Your task to perform on an android device: change your default location settings in chrome Image 0: 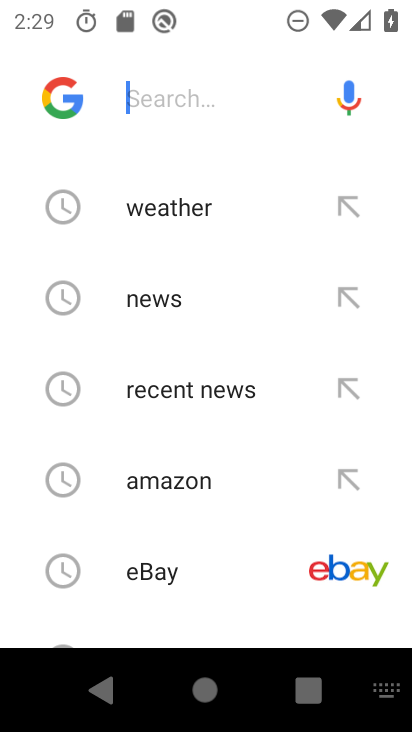
Step 0: press home button
Your task to perform on an android device: change your default location settings in chrome Image 1: 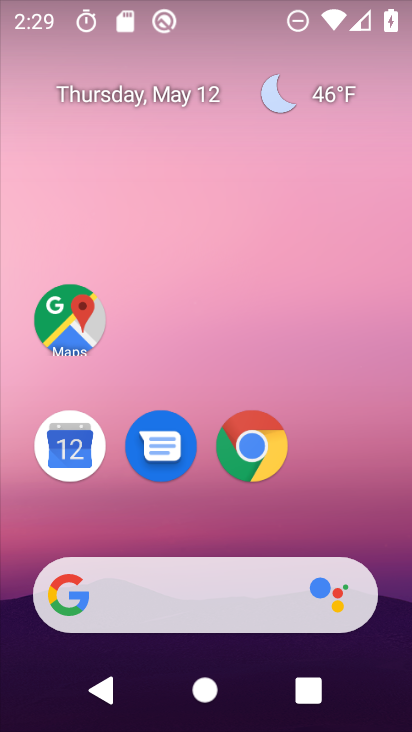
Step 1: click (247, 475)
Your task to perform on an android device: change your default location settings in chrome Image 2: 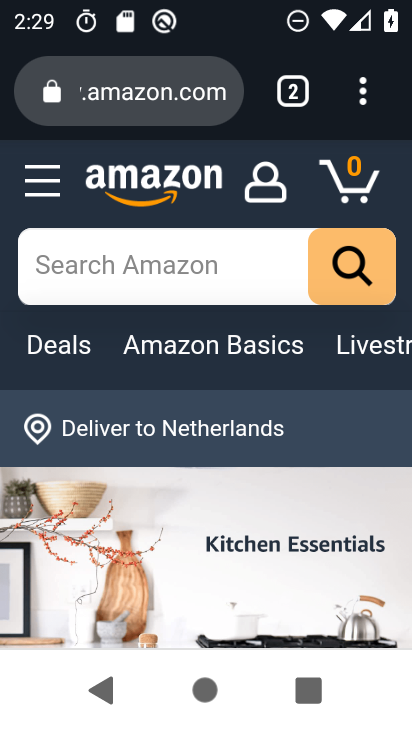
Step 2: drag from (355, 90) to (203, 476)
Your task to perform on an android device: change your default location settings in chrome Image 3: 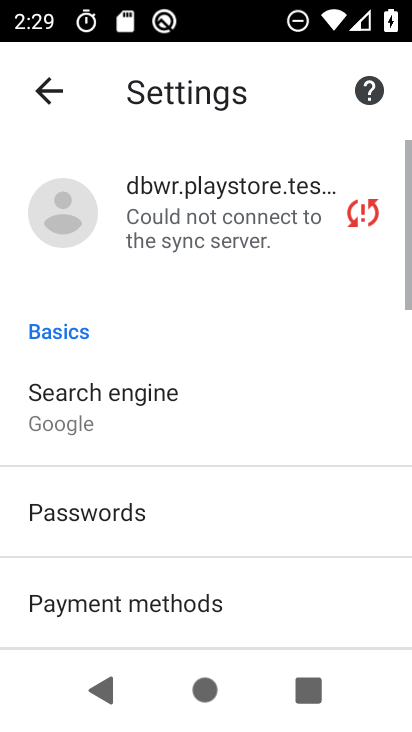
Step 3: drag from (196, 586) to (290, 251)
Your task to perform on an android device: change your default location settings in chrome Image 4: 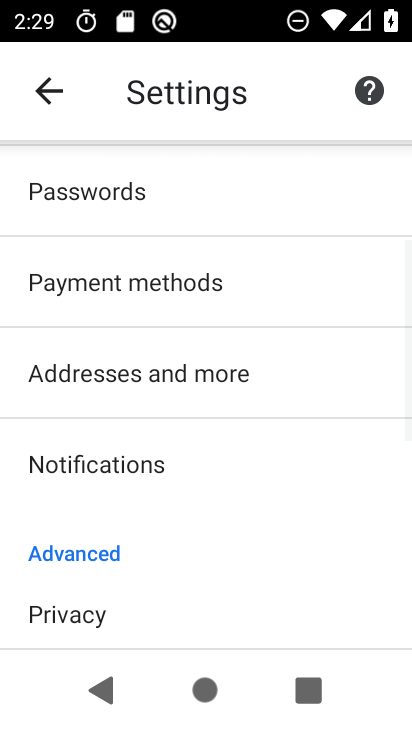
Step 4: drag from (220, 526) to (275, 291)
Your task to perform on an android device: change your default location settings in chrome Image 5: 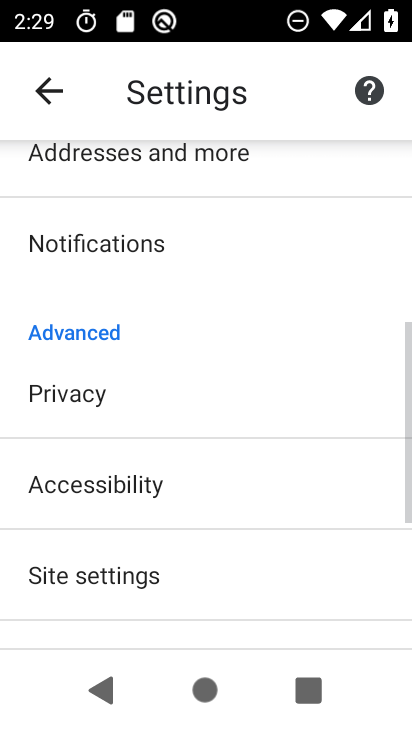
Step 5: drag from (243, 530) to (276, 328)
Your task to perform on an android device: change your default location settings in chrome Image 6: 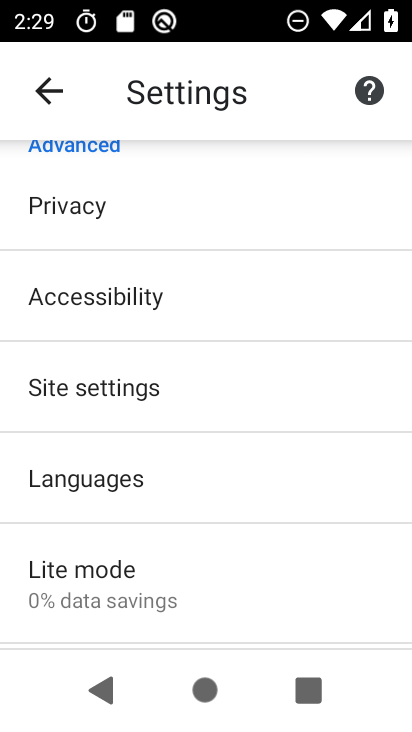
Step 6: drag from (221, 506) to (278, 281)
Your task to perform on an android device: change your default location settings in chrome Image 7: 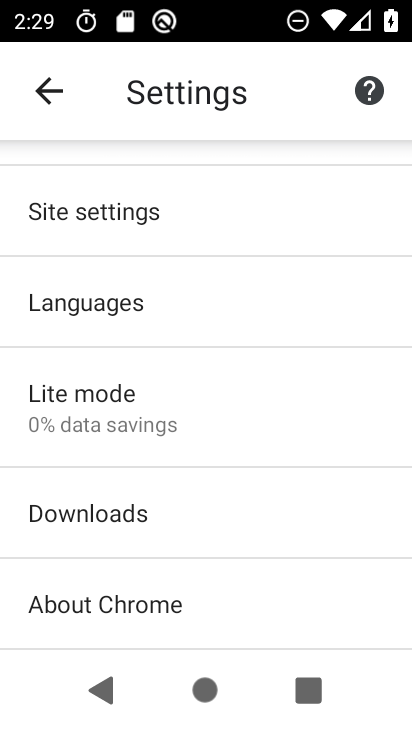
Step 7: drag from (237, 304) to (249, 436)
Your task to perform on an android device: change your default location settings in chrome Image 8: 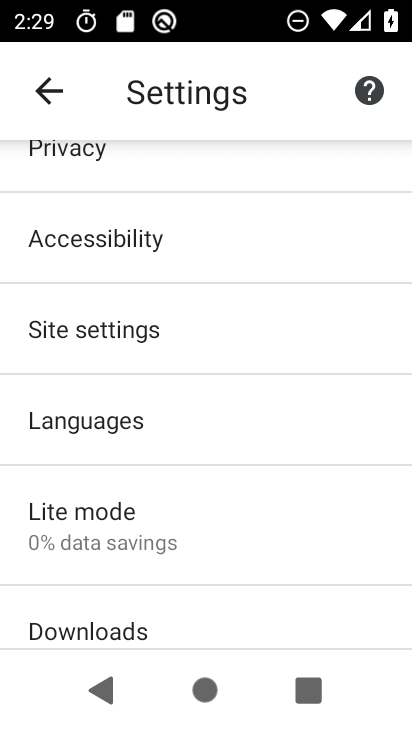
Step 8: drag from (187, 241) to (218, 406)
Your task to perform on an android device: change your default location settings in chrome Image 9: 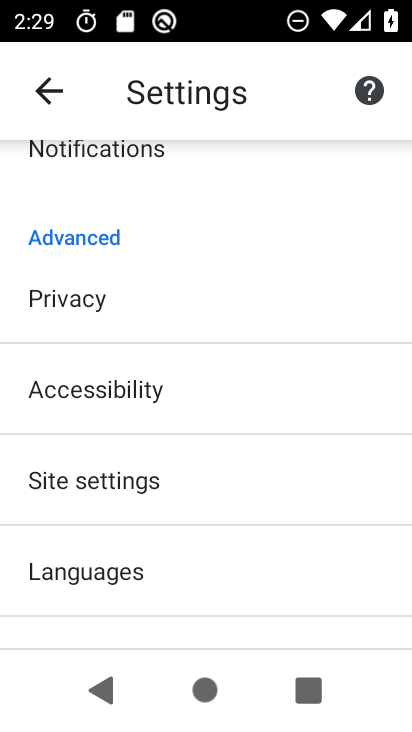
Step 9: drag from (221, 539) to (243, 334)
Your task to perform on an android device: change your default location settings in chrome Image 10: 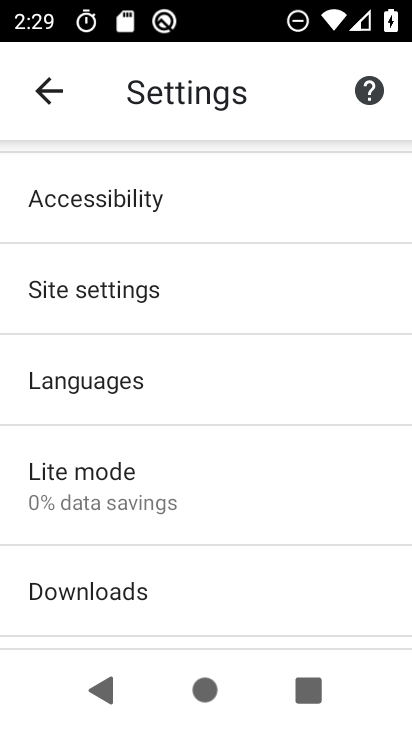
Step 10: click (199, 297)
Your task to perform on an android device: change your default location settings in chrome Image 11: 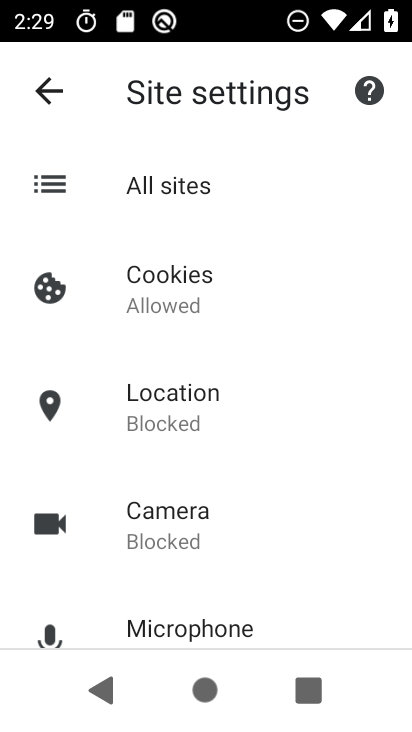
Step 11: click (230, 401)
Your task to perform on an android device: change your default location settings in chrome Image 12: 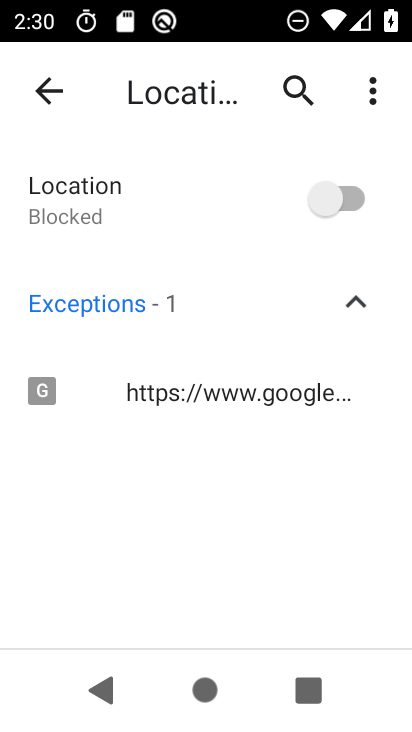
Step 12: click (359, 203)
Your task to perform on an android device: change your default location settings in chrome Image 13: 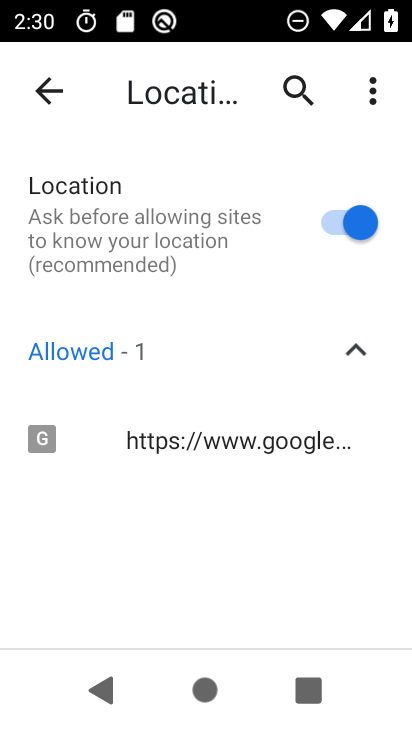
Step 13: task complete